Your task to perform on an android device: turn pop-ups on in chrome Image 0: 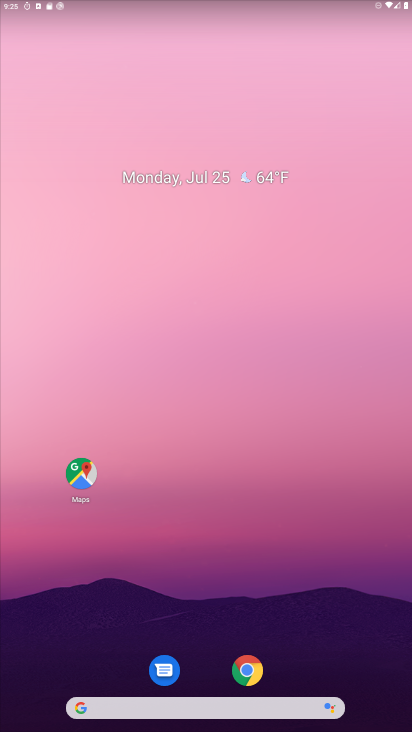
Step 0: drag from (375, 663) to (211, 50)
Your task to perform on an android device: turn pop-ups on in chrome Image 1: 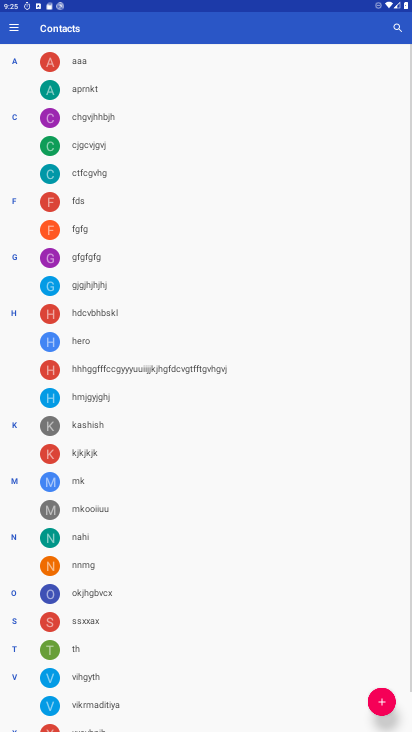
Step 1: press home button
Your task to perform on an android device: turn pop-ups on in chrome Image 2: 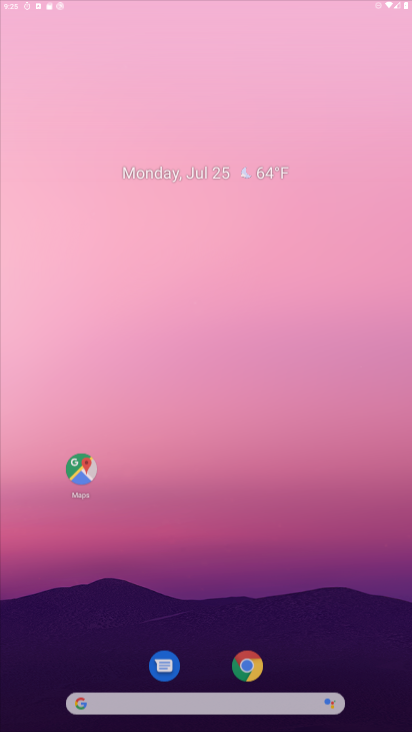
Step 2: drag from (357, 725) to (179, 88)
Your task to perform on an android device: turn pop-ups on in chrome Image 3: 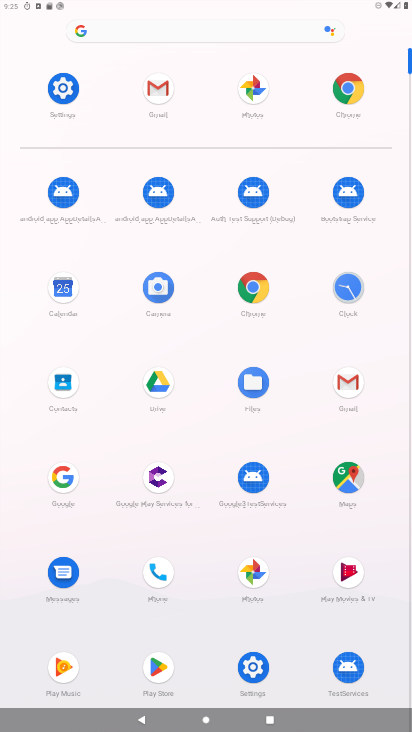
Step 3: click (341, 91)
Your task to perform on an android device: turn pop-ups on in chrome Image 4: 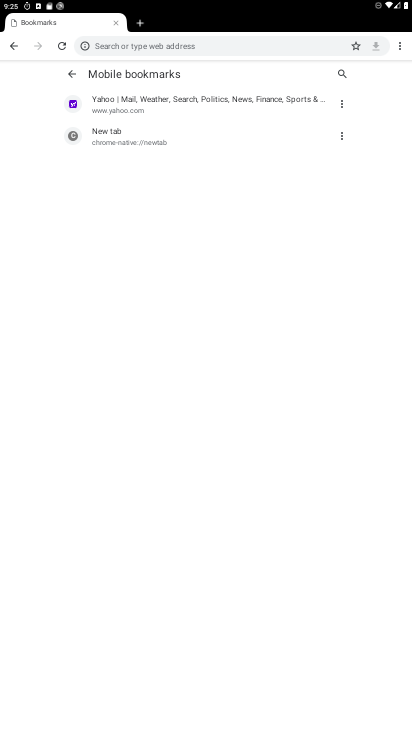
Step 4: click (402, 39)
Your task to perform on an android device: turn pop-ups on in chrome Image 5: 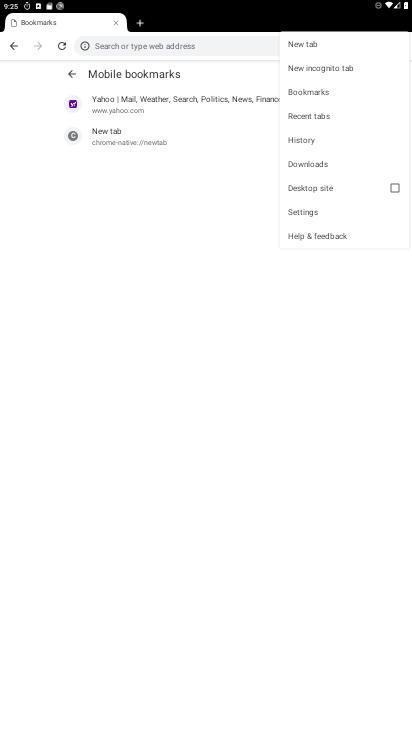
Step 5: click (308, 215)
Your task to perform on an android device: turn pop-ups on in chrome Image 6: 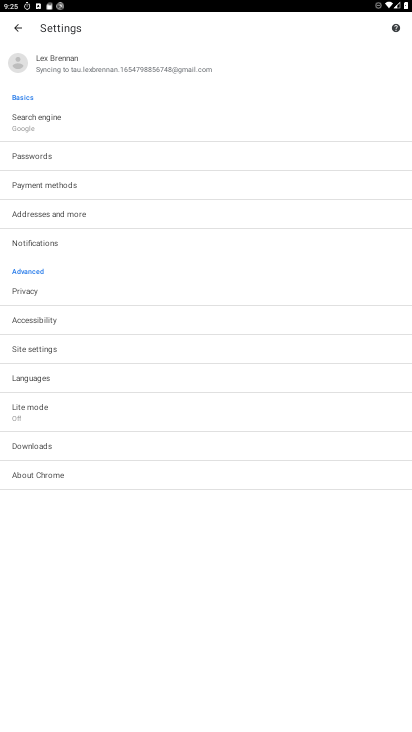
Step 6: click (61, 351)
Your task to perform on an android device: turn pop-ups on in chrome Image 7: 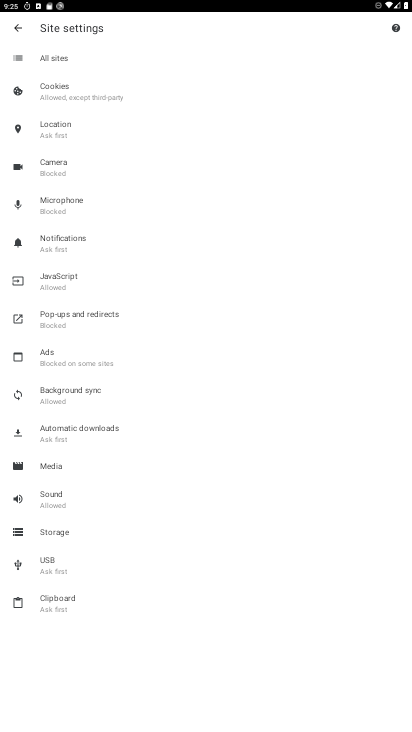
Step 7: click (73, 325)
Your task to perform on an android device: turn pop-ups on in chrome Image 8: 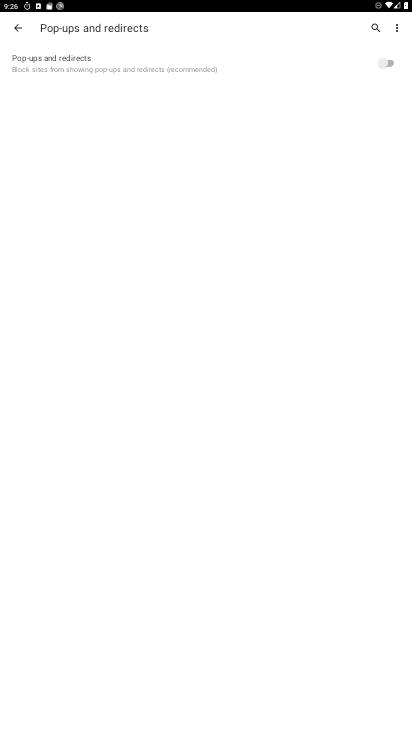
Step 8: click (389, 65)
Your task to perform on an android device: turn pop-ups on in chrome Image 9: 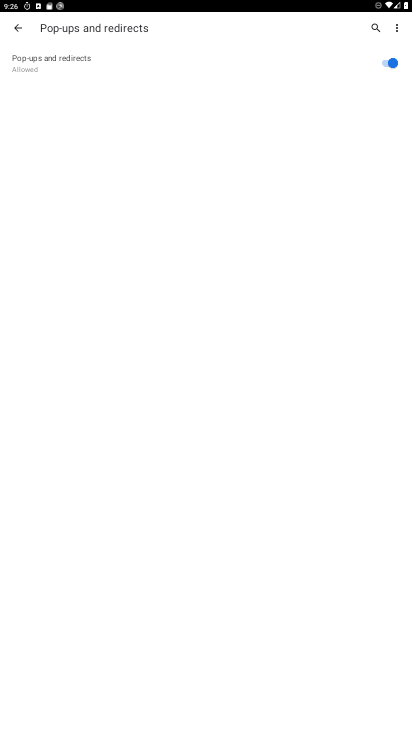
Step 9: task complete